Your task to perform on an android device: Is it going to rain this weekend? Image 0: 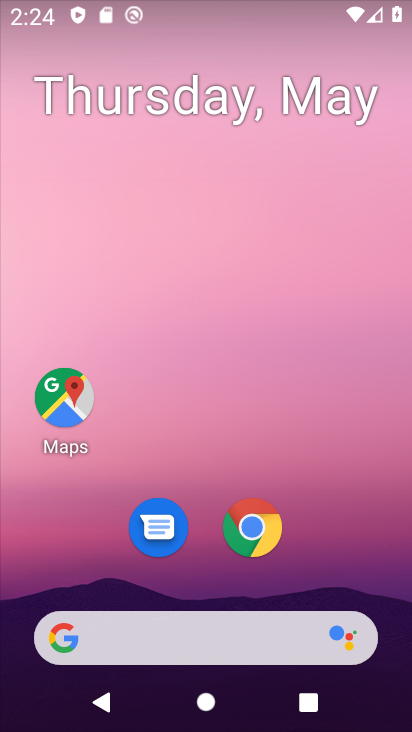
Step 0: press home button
Your task to perform on an android device: Is it going to rain this weekend? Image 1: 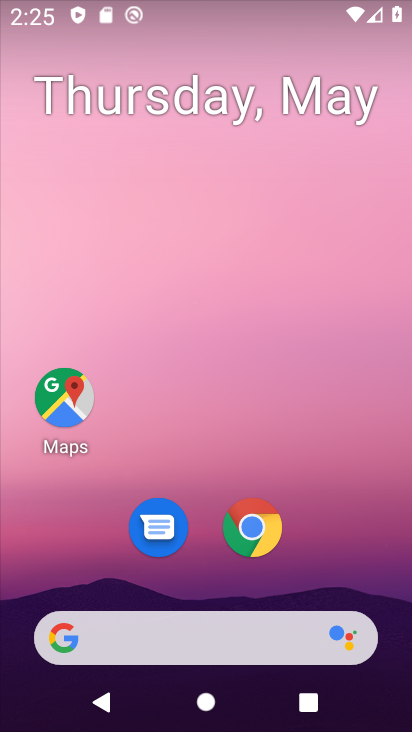
Step 1: click (236, 509)
Your task to perform on an android device: Is it going to rain this weekend? Image 2: 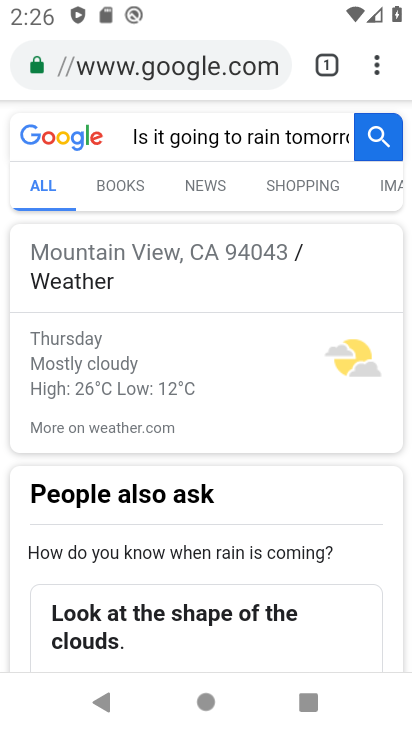
Step 2: task complete